Your task to perform on an android device: change timer sound Image 0: 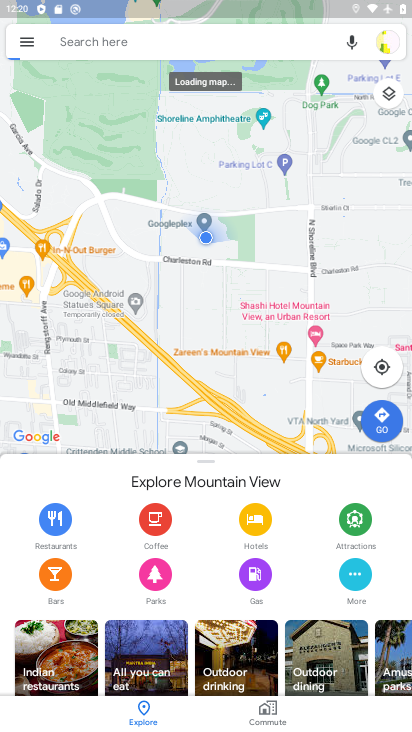
Step 0: press home button
Your task to perform on an android device: change timer sound Image 1: 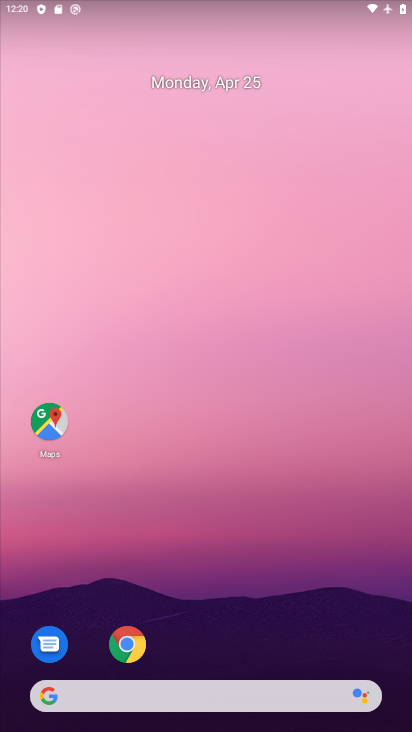
Step 1: drag from (261, 607) to (244, 13)
Your task to perform on an android device: change timer sound Image 2: 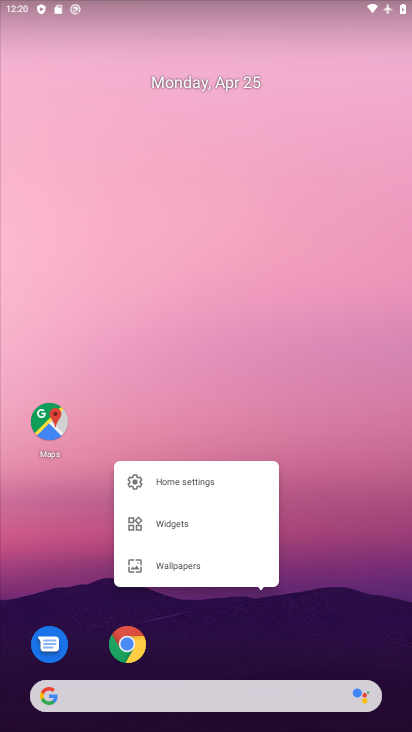
Step 2: click (304, 650)
Your task to perform on an android device: change timer sound Image 3: 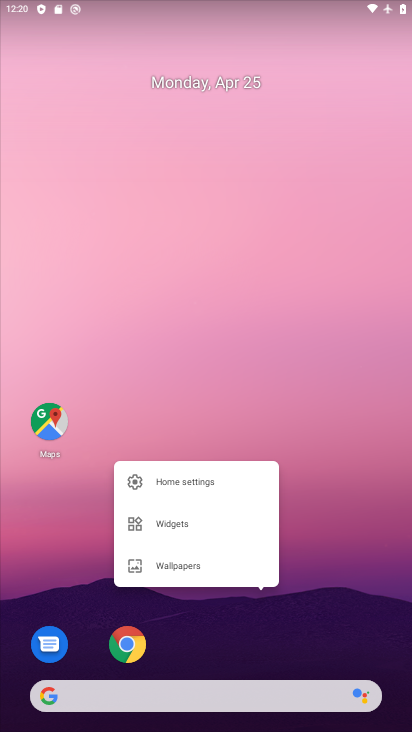
Step 3: drag from (304, 650) to (288, 209)
Your task to perform on an android device: change timer sound Image 4: 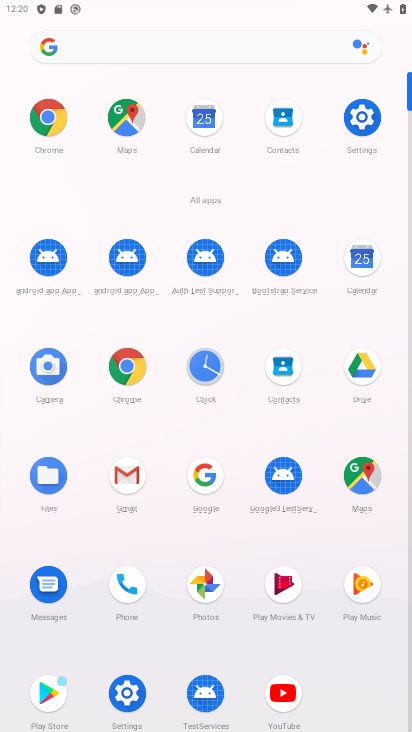
Step 4: click (357, 121)
Your task to perform on an android device: change timer sound Image 5: 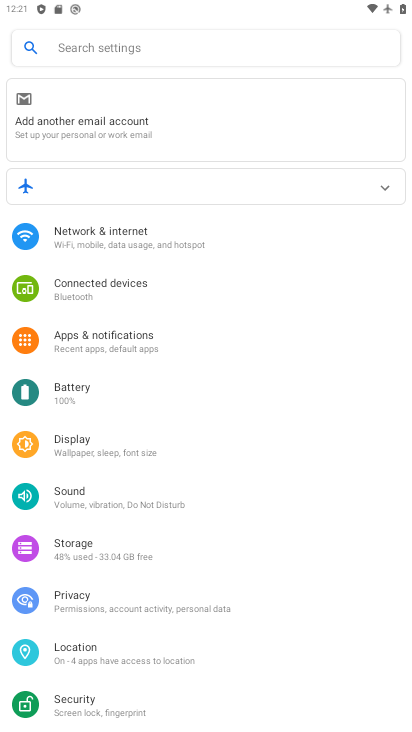
Step 5: press home button
Your task to perform on an android device: change timer sound Image 6: 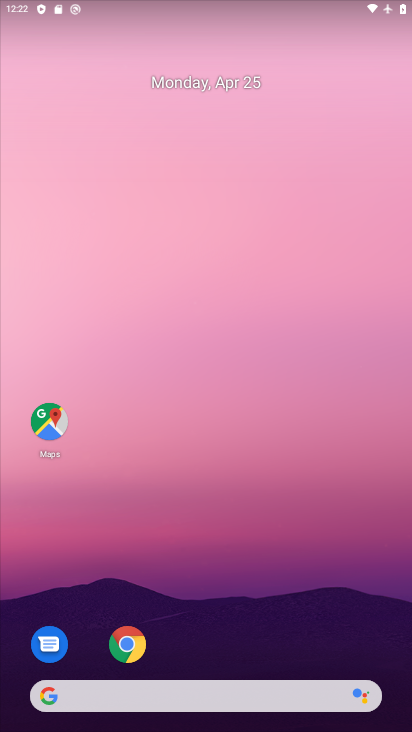
Step 6: drag from (213, 623) to (244, 210)
Your task to perform on an android device: change timer sound Image 7: 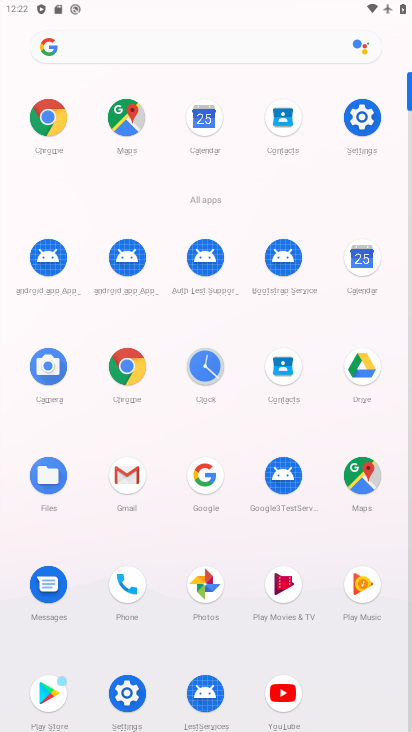
Step 7: click (208, 362)
Your task to perform on an android device: change timer sound Image 8: 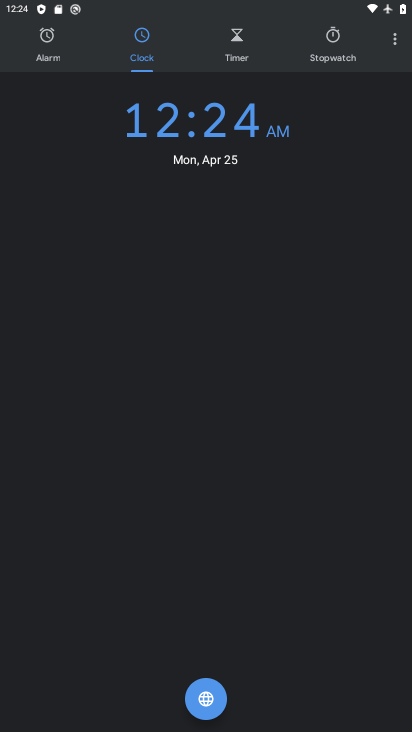
Step 8: task complete